Your task to perform on an android device: Go to notification settings Image 0: 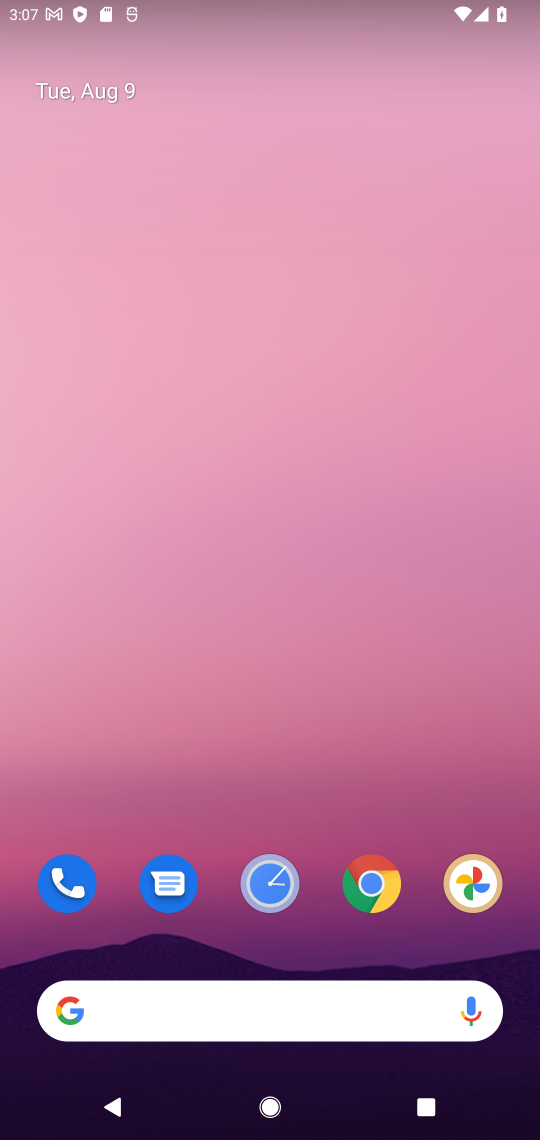
Step 0: drag from (384, 957) to (315, 303)
Your task to perform on an android device: Go to notification settings Image 1: 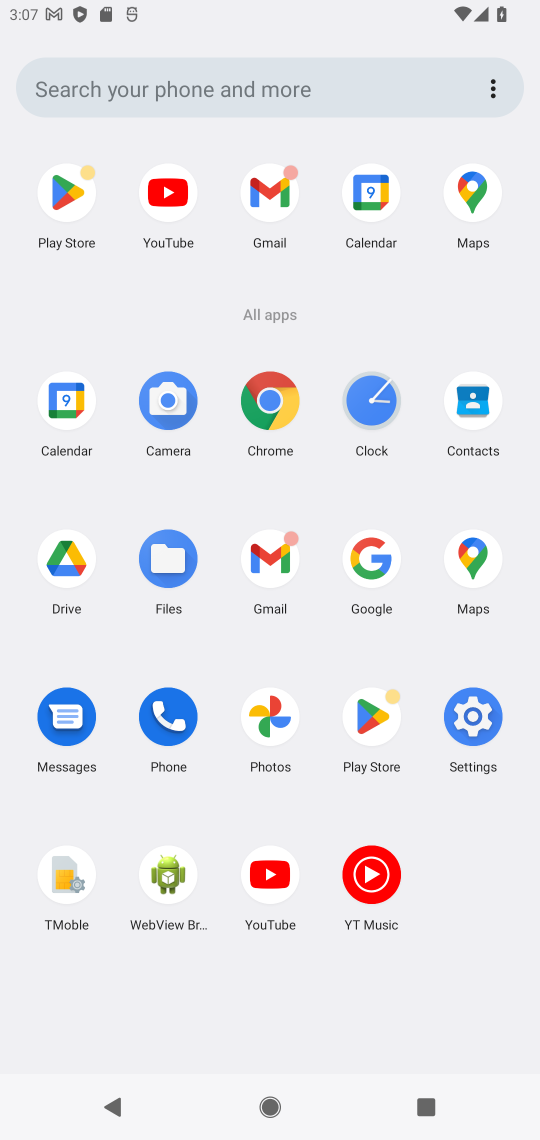
Step 1: click (471, 733)
Your task to perform on an android device: Go to notification settings Image 2: 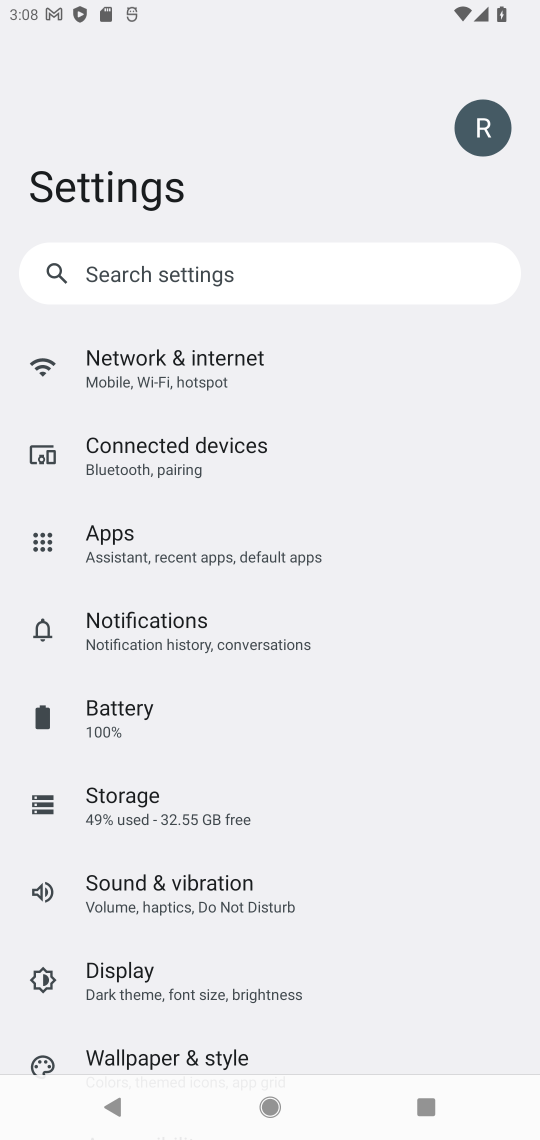
Step 2: click (210, 278)
Your task to perform on an android device: Go to notification settings Image 3: 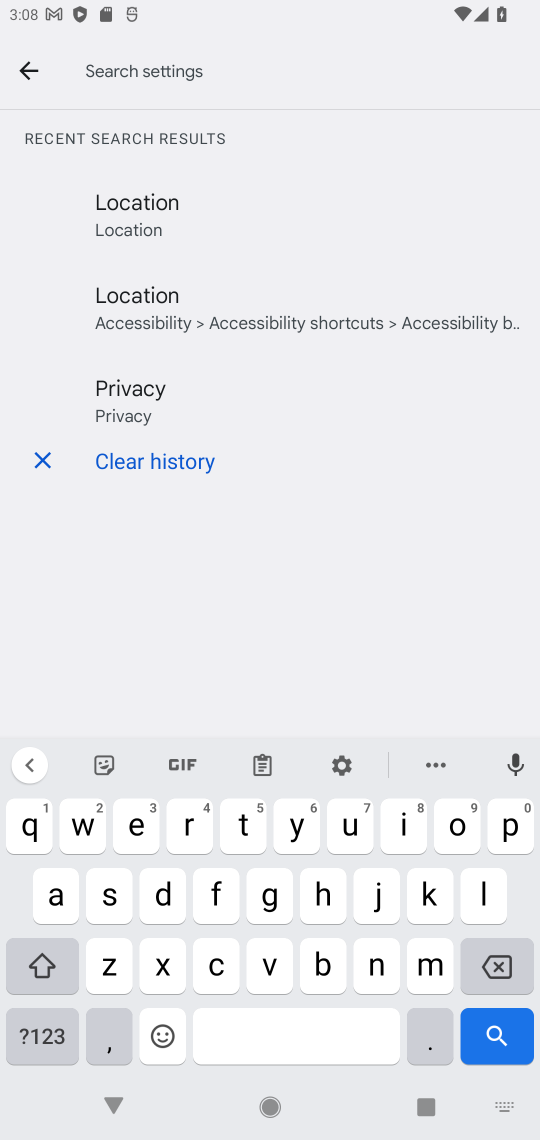
Step 3: click (370, 958)
Your task to perform on an android device: Go to notification settings Image 4: 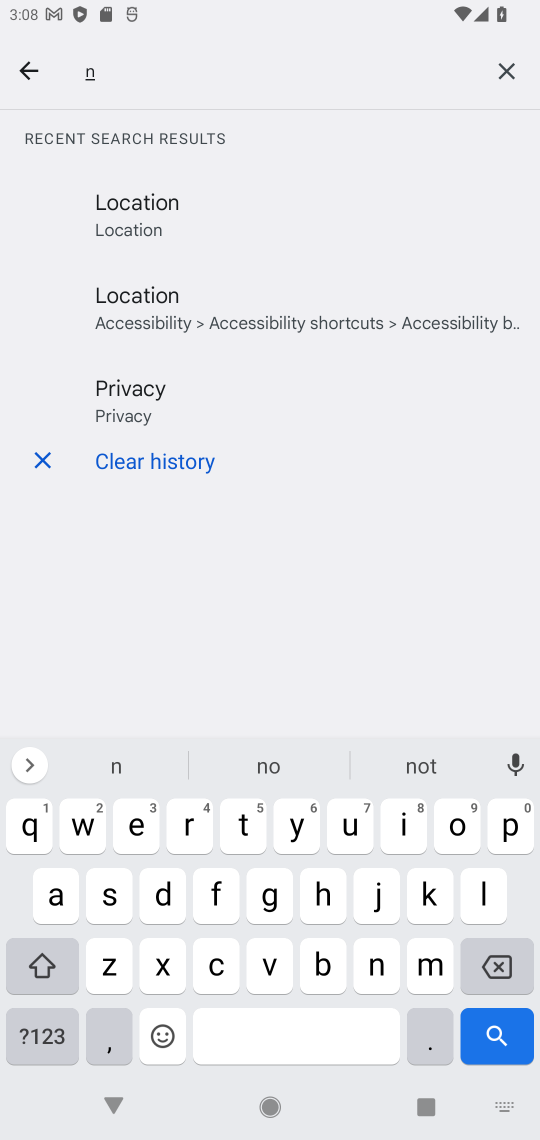
Step 4: click (452, 824)
Your task to perform on an android device: Go to notification settings Image 5: 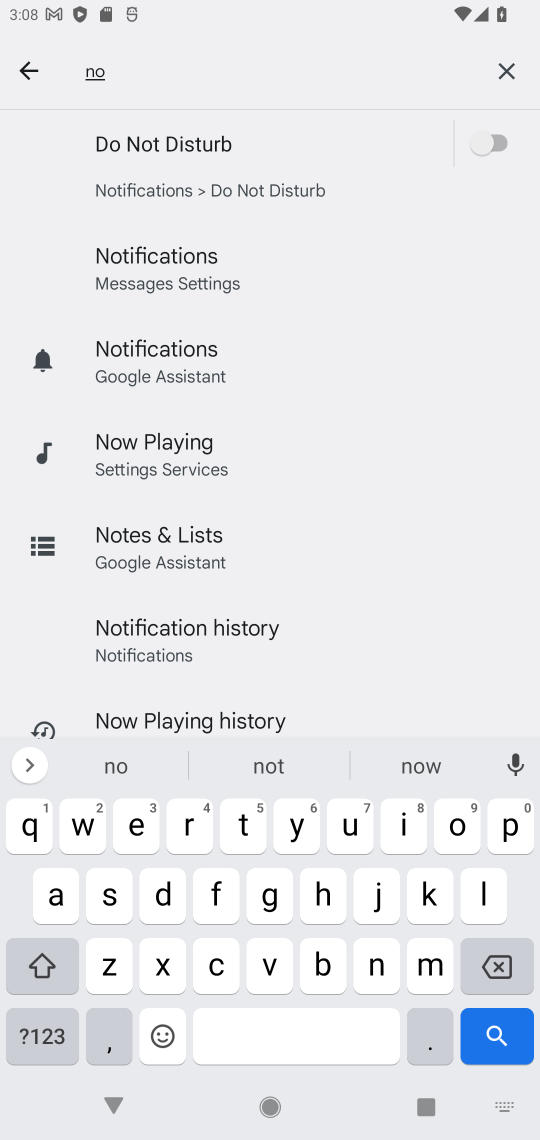
Step 5: click (196, 278)
Your task to perform on an android device: Go to notification settings Image 6: 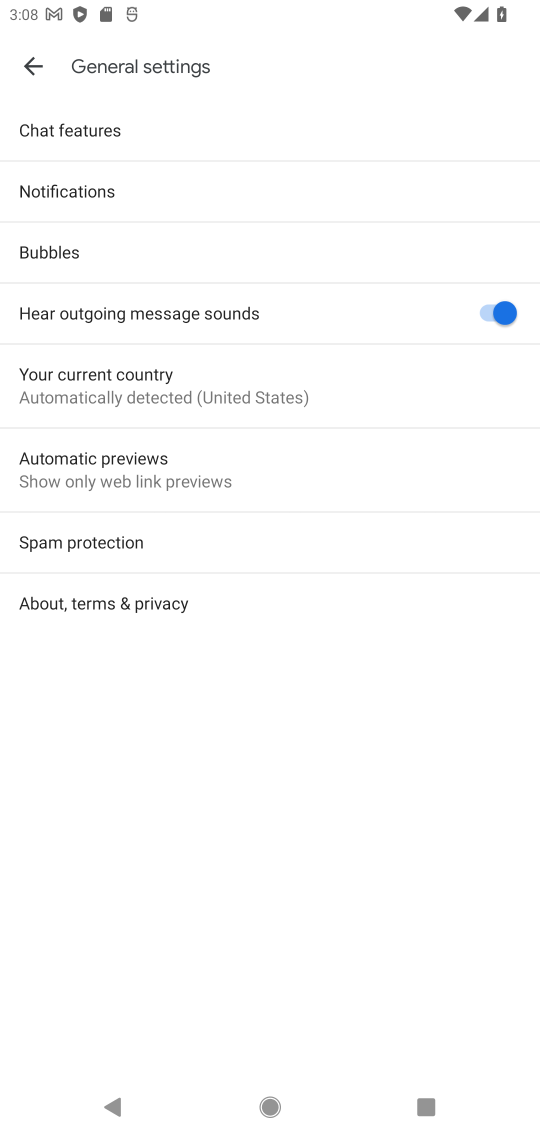
Step 6: click (147, 206)
Your task to perform on an android device: Go to notification settings Image 7: 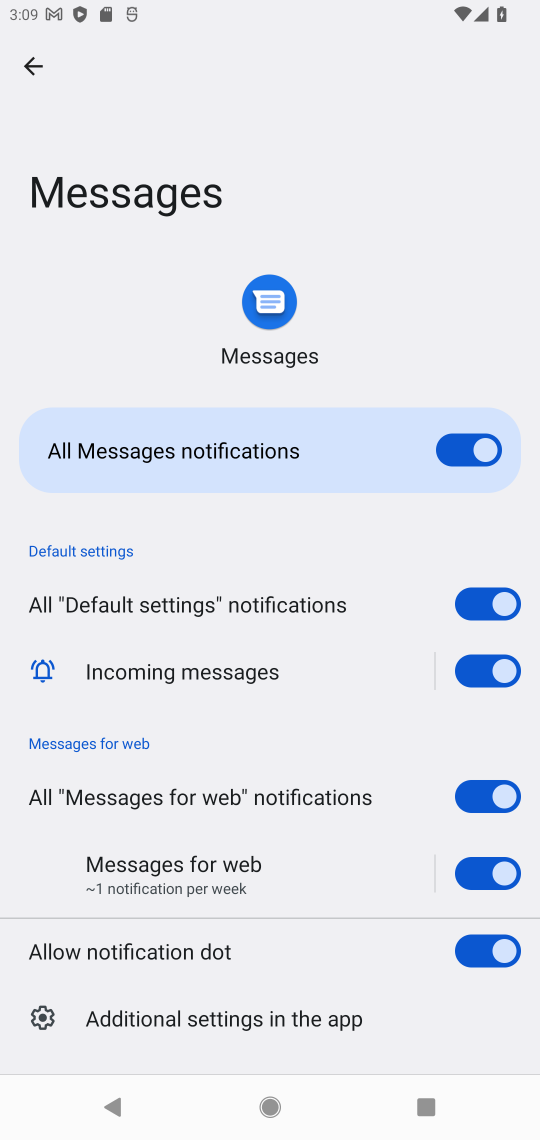
Step 7: task complete